Your task to perform on an android device: change your default location settings in chrome Image 0: 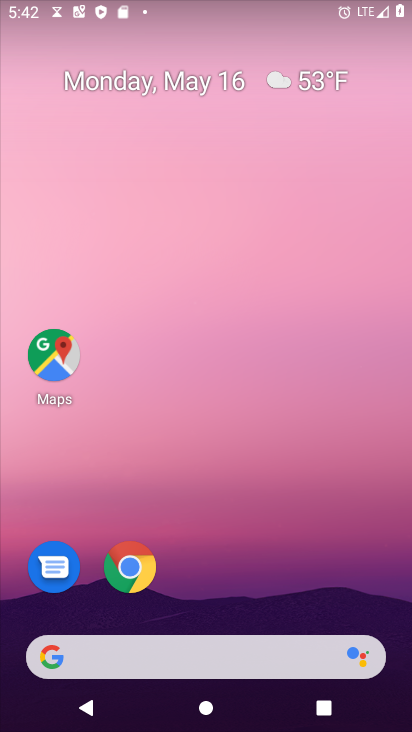
Step 0: drag from (301, 510) to (305, 146)
Your task to perform on an android device: change your default location settings in chrome Image 1: 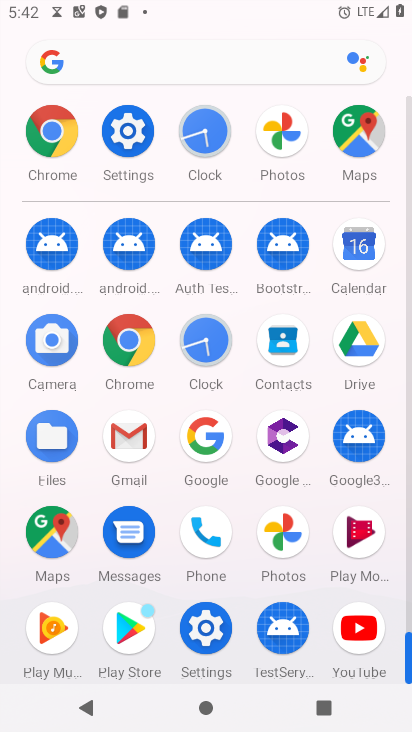
Step 1: click (125, 338)
Your task to perform on an android device: change your default location settings in chrome Image 2: 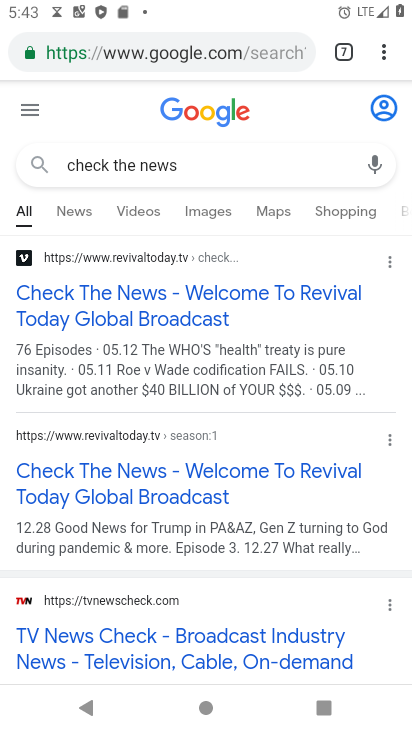
Step 2: click (388, 62)
Your task to perform on an android device: change your default location settings in chrome Image 3: 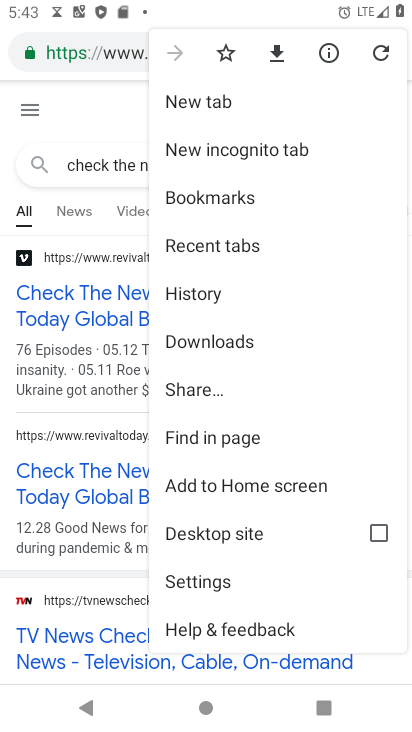
Step 3: click (216, 580)
Your task to perform on an android device: change your default location settings in chrome Image 4: 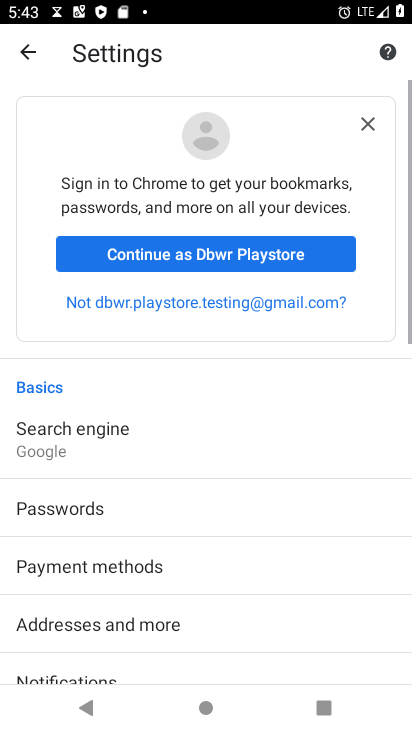
Step 4: drag from (178, 533) to (221, 131)
Your task to perform on an android device: change your default location settings in chrome Image 5: 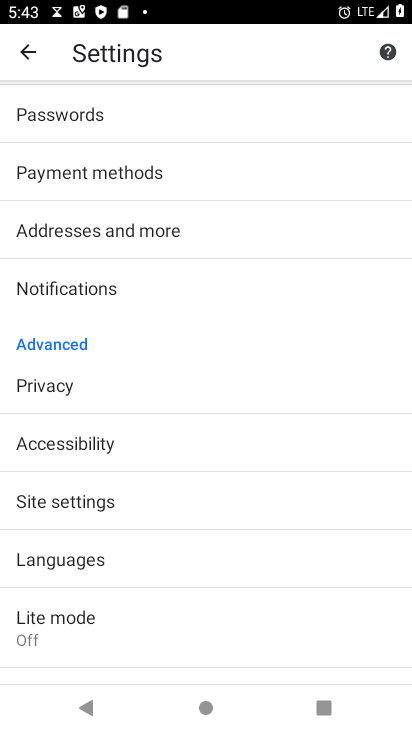
Step 5: click (105, 508)
Your task to perform on an android device: change your default location settings in chrome Image 6: 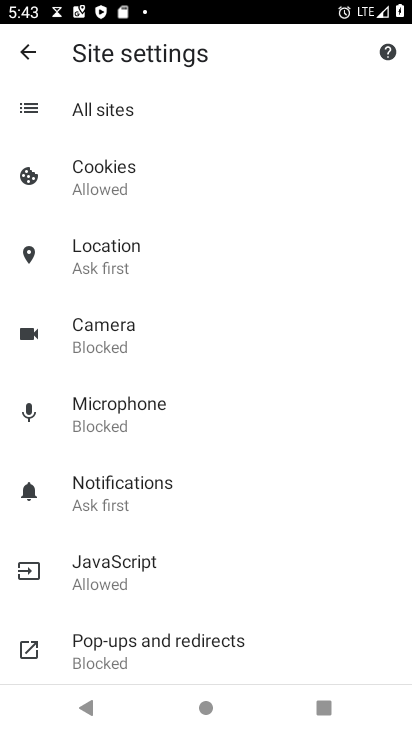
Step 6: click (146, 267)
Your task to perform on an android device: change your default location settings in chrome Image 7: 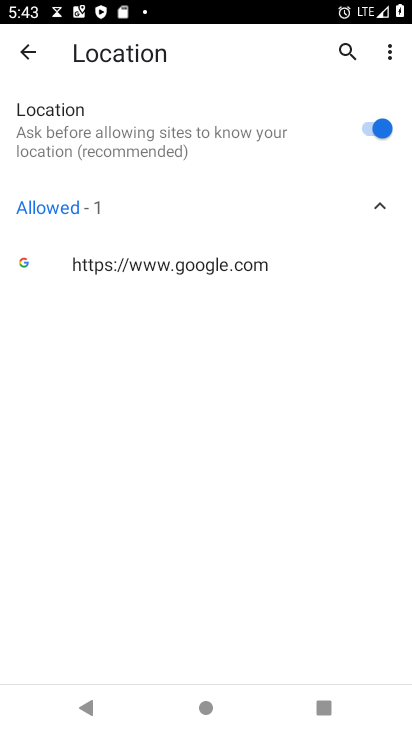
Step 7: task complete